Your task to perform on an android device: See recent photos Image 0: 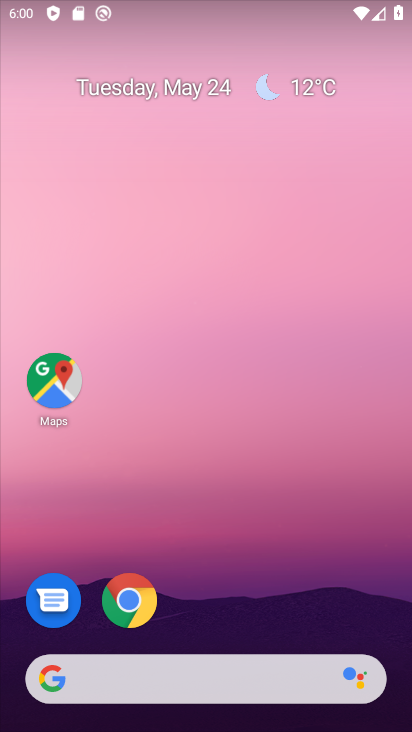
Step 0: drag from (315, 654) to (314, 68)
Your task to perform on an android device: See recent photos Image 1: 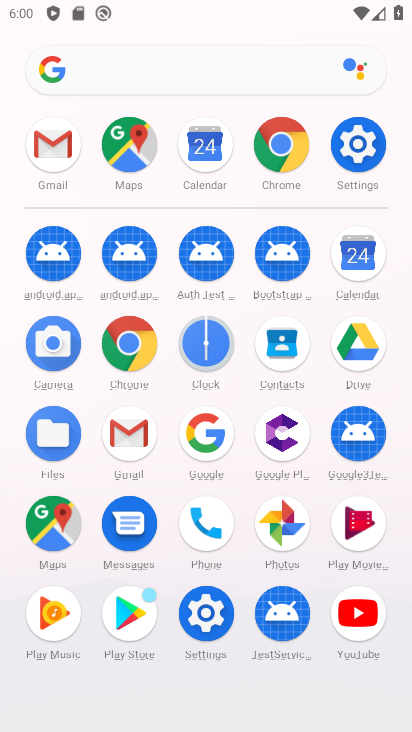
Step 1: click (130, 352)
Your task to perform on an android device: See recent photos Image 2: 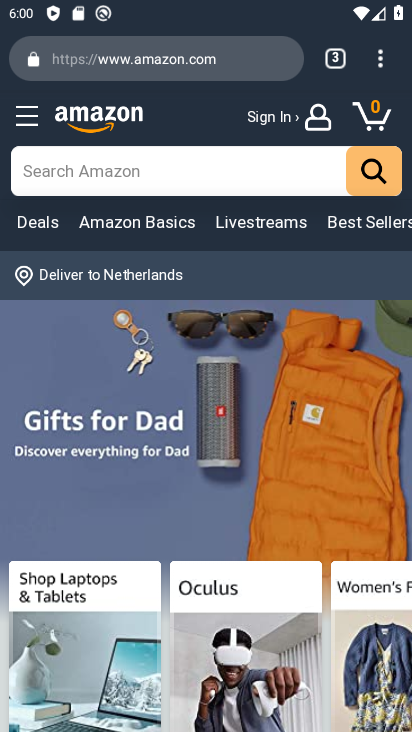
Step 2: press home button
Your task to perform on an android device: See recent photos Image 3: 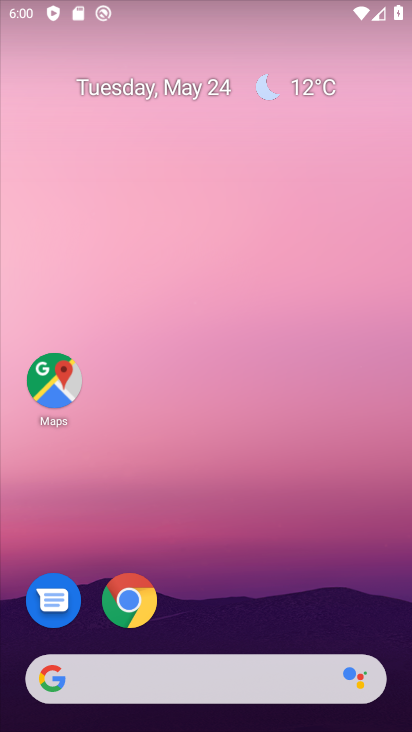
Step 3: drag from (291, 623) to (314, 5)
Your task to perform on an android device: See recent photos Image 4: 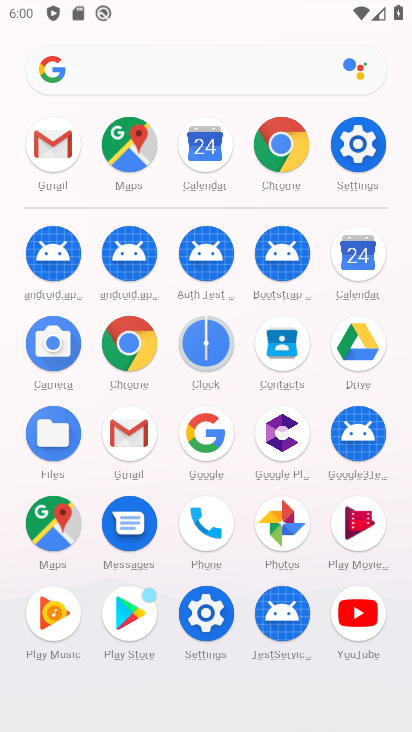
Step 4: click (278, 527)
Your task to perform on an android device: See recent photos Image 5: 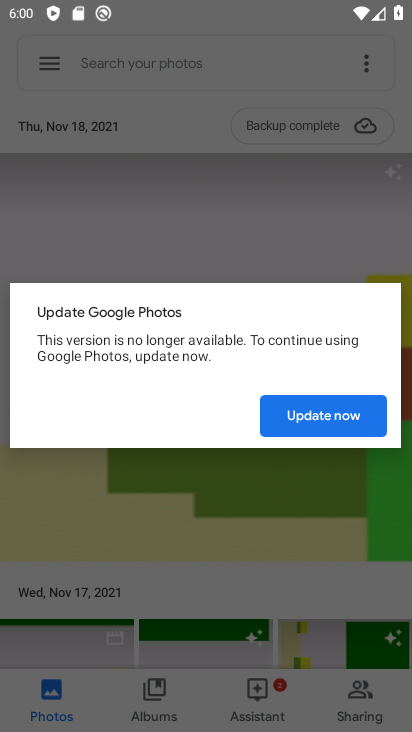
Step 5: press back button
Your task to perform on an android device: See recent photos Image 6: 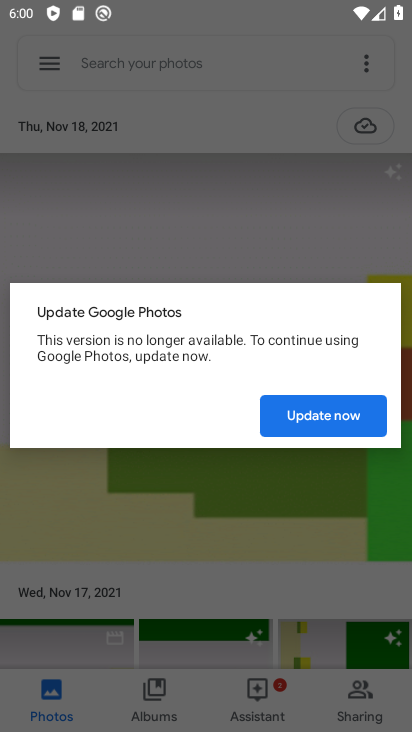
Step 6: click (340, 414)
Your task to perform on an android device: See recent photos Image 7: 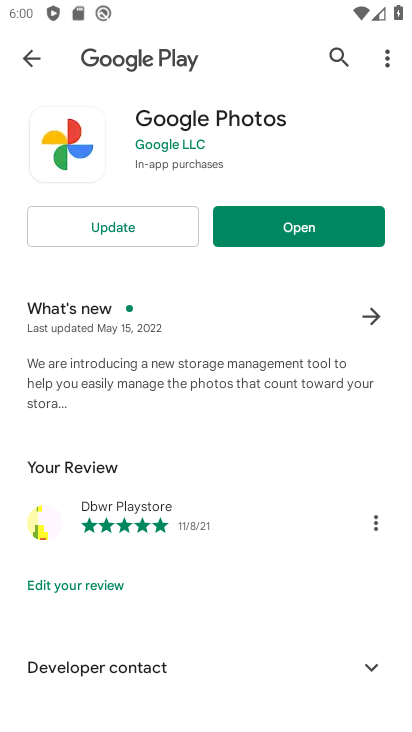
Step 7: click (120, 219)
Your task to perform on an android device: See recent photos Image 8: 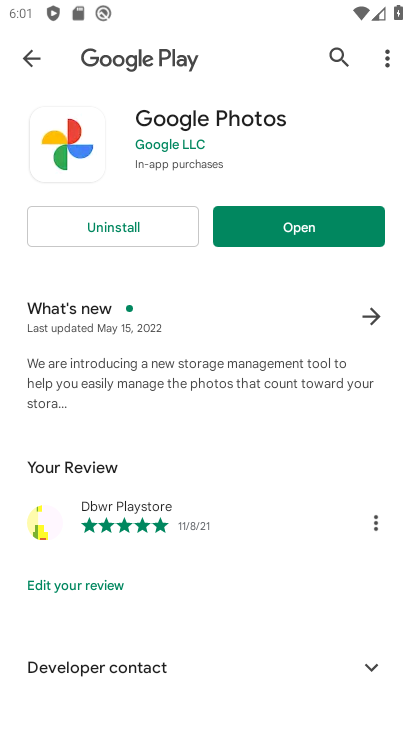
Step 8: click (267, 236)
Your task to perform on an android device: See recent photos Image 9: 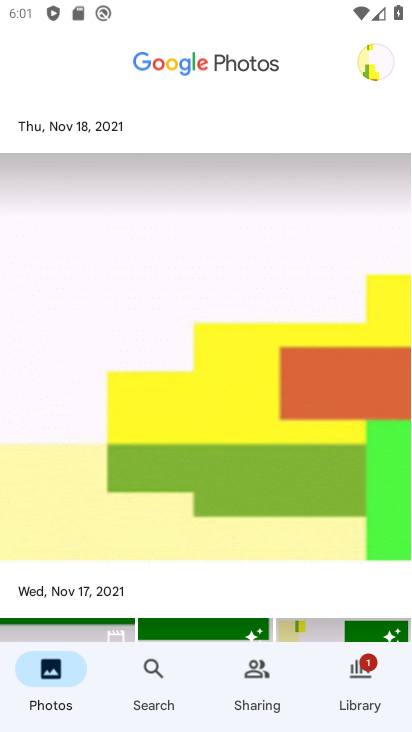
Step 9: task complete